Your task to perform on an android device: Is it going to rain this weekend? Image 0: 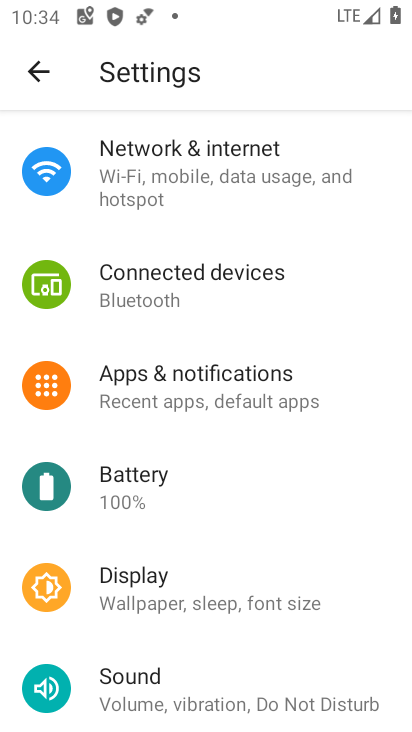
Step 0: press home button
Your task to perform on an android device: Is it going to rain this weekend? Image 1: 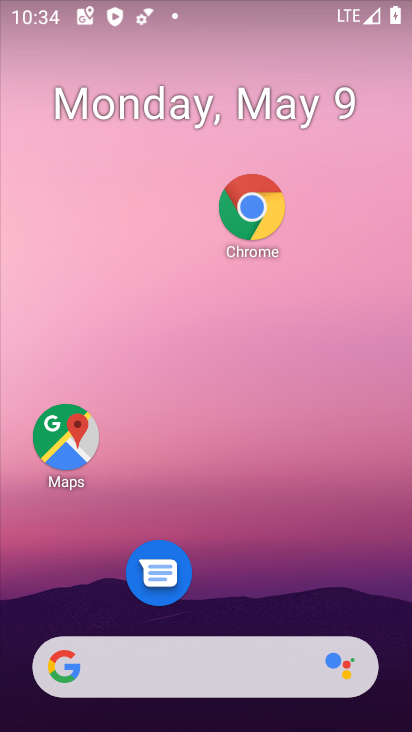
Step 1: drag from (198, 600) to (284, 39)
Your task to perform on an android device: Is it going to rain this weekend? Image 2: 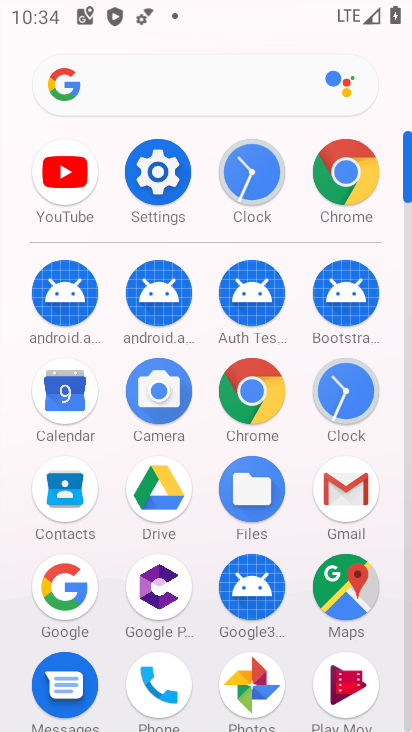
Step 2: click (72, 597)
Your task to perform on an android device: Is it going to rain this weekend? Image 3: 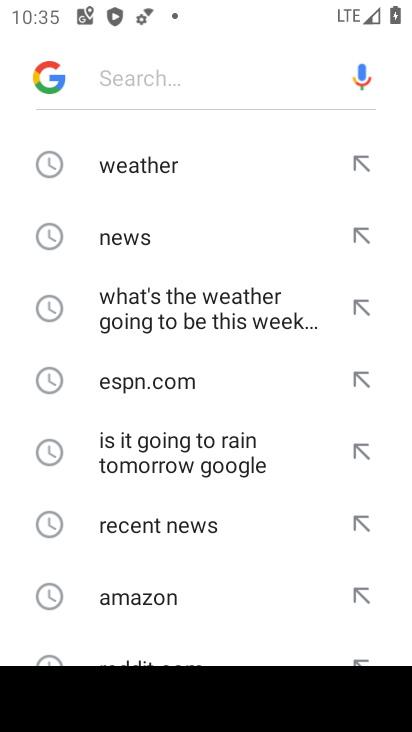
Step 3: click (204, 162)
Your task to perform on an android device: Is it going to rain this weekend? Image 4: 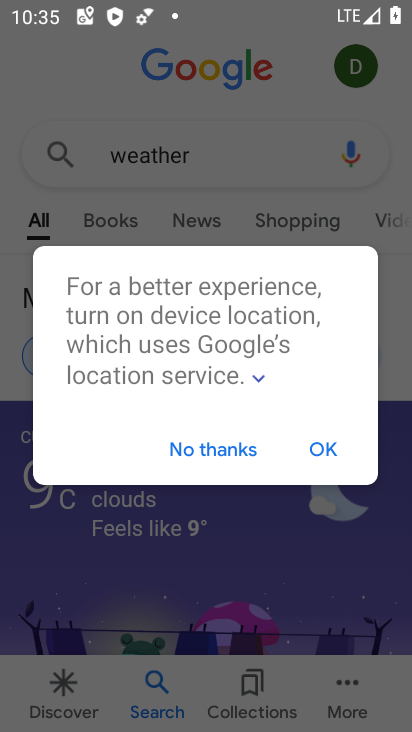
Step 4: click (321, 449)
Your task to perform on an android device: Is it going to rain this weekend? Image 5: 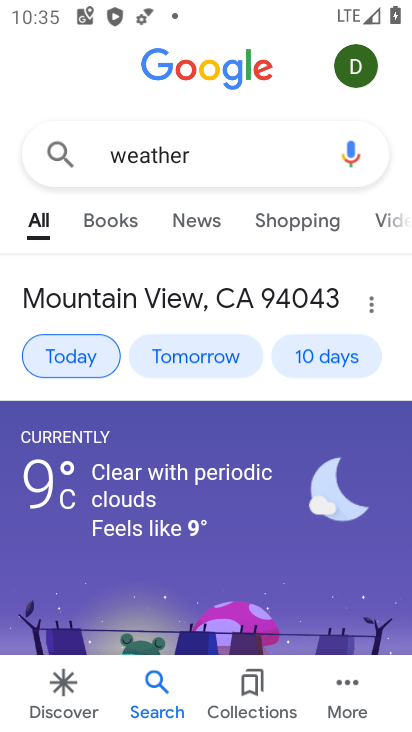
Step 5: click (311, 360)
Your task to perform on an android device: Is it going to rain this weekend? Image 6: 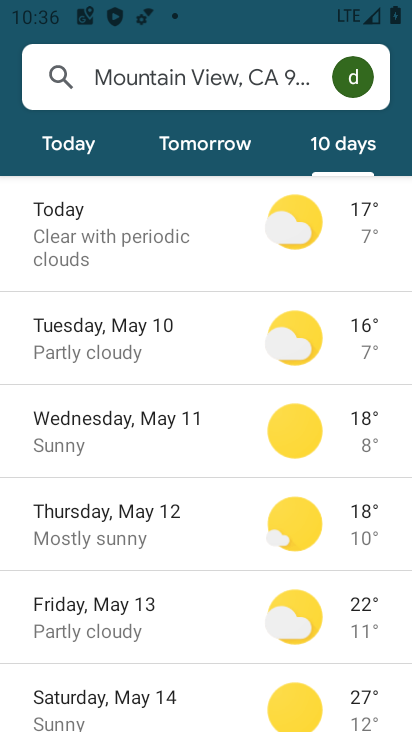
Step 6: task complete